Your task to perform on an android device: turn on priority inbox in the gmail app Image 0: 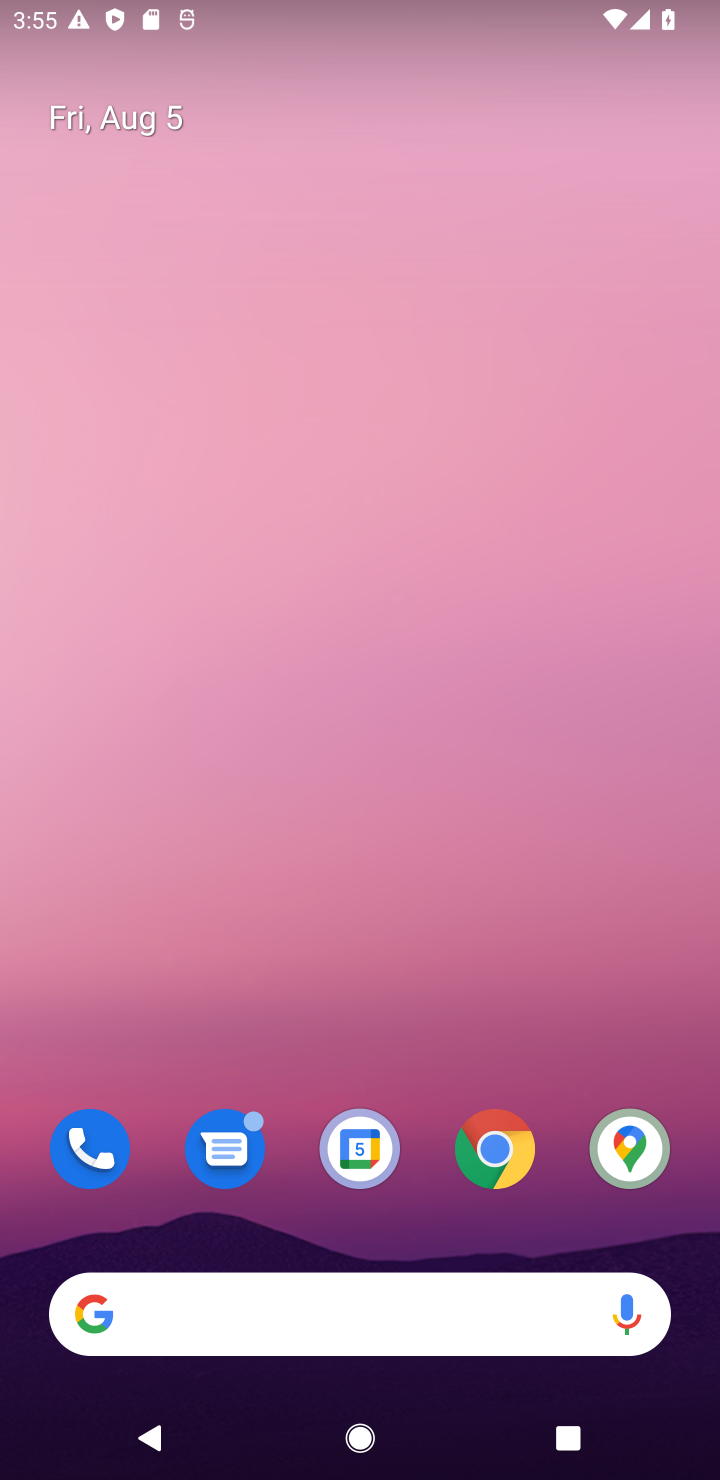
Step 0: press back button
Your task to perform on an android device: turn on priority inbox in the gmail app Image 1: 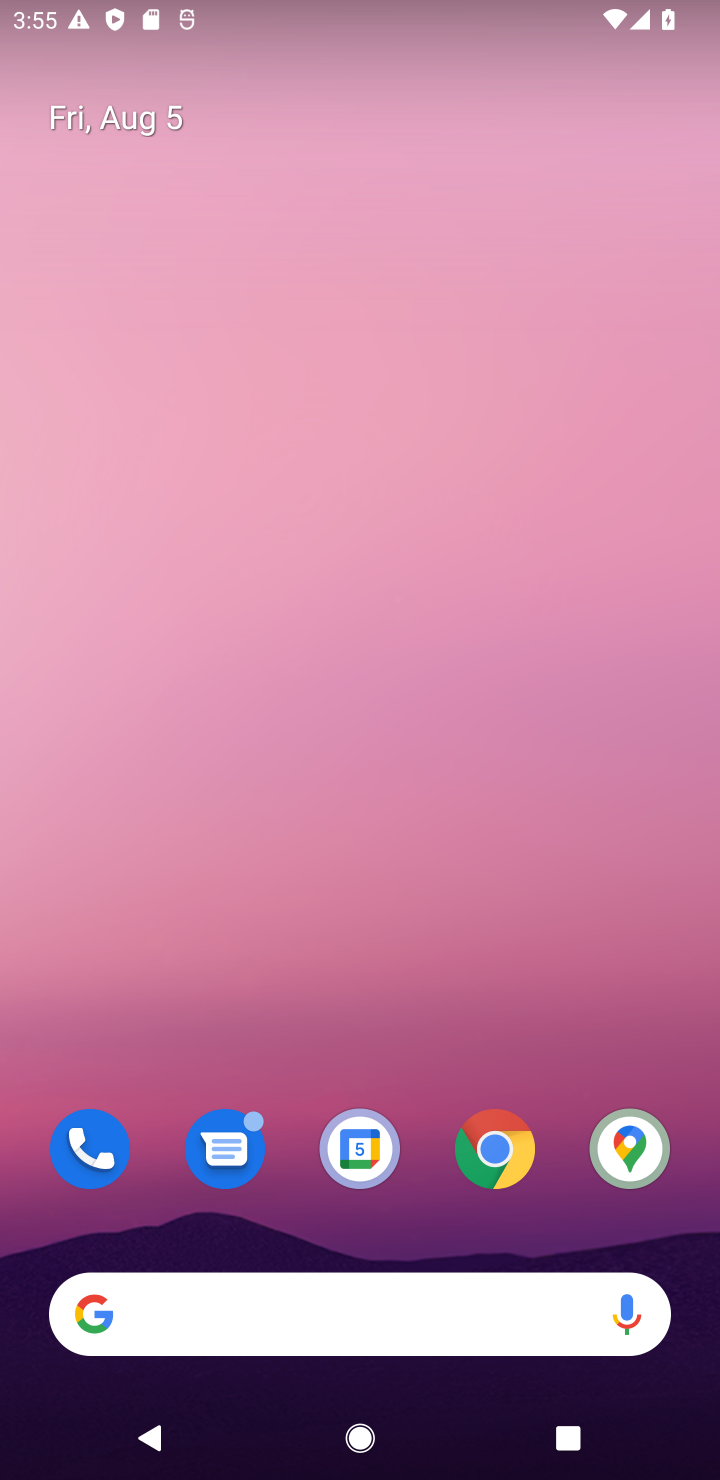
Step 1: click (608, 1131)
Your task to perform on an android device: turn on priority inbox in the gmail app Image 2: 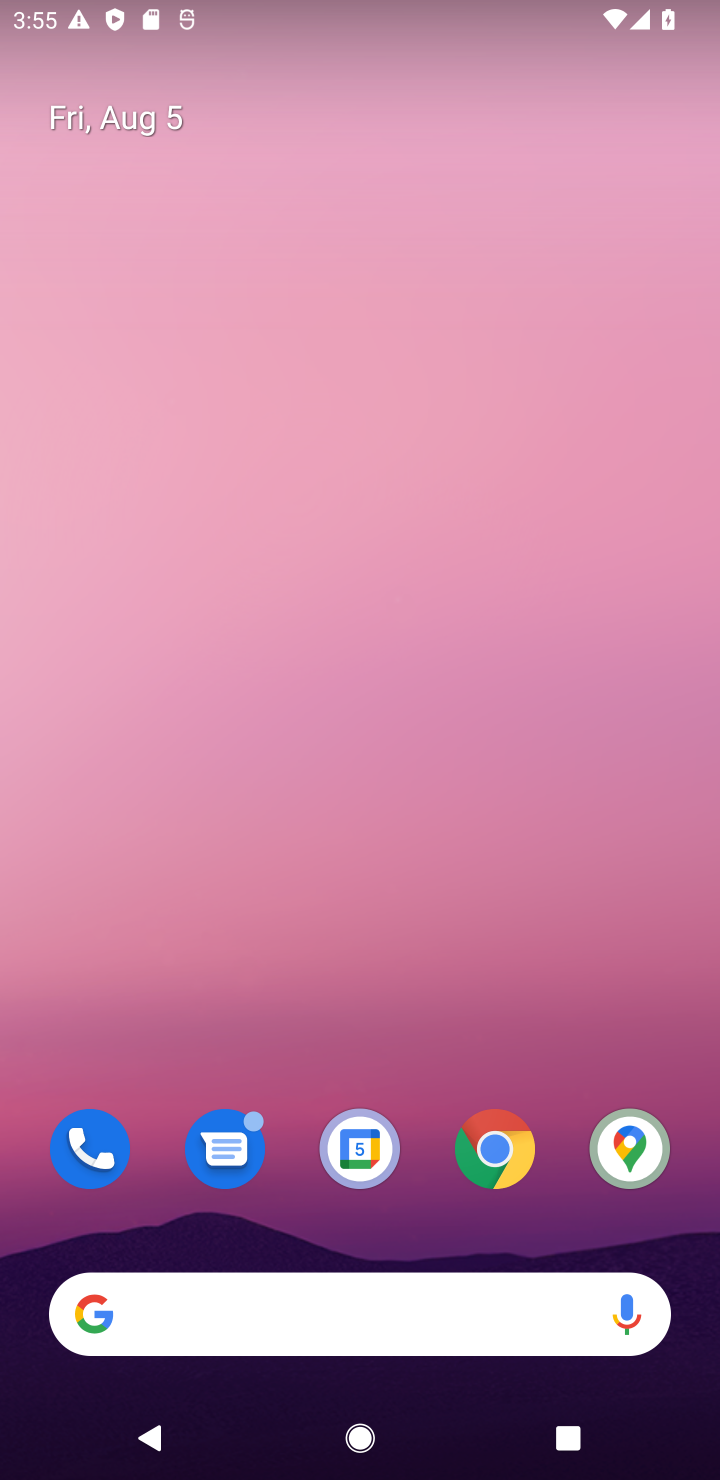
Step 2: drag from (313, 1187) to (570, 141)
Your task to perform on an android device: turn on priority inbox in the gmail app Image 3: 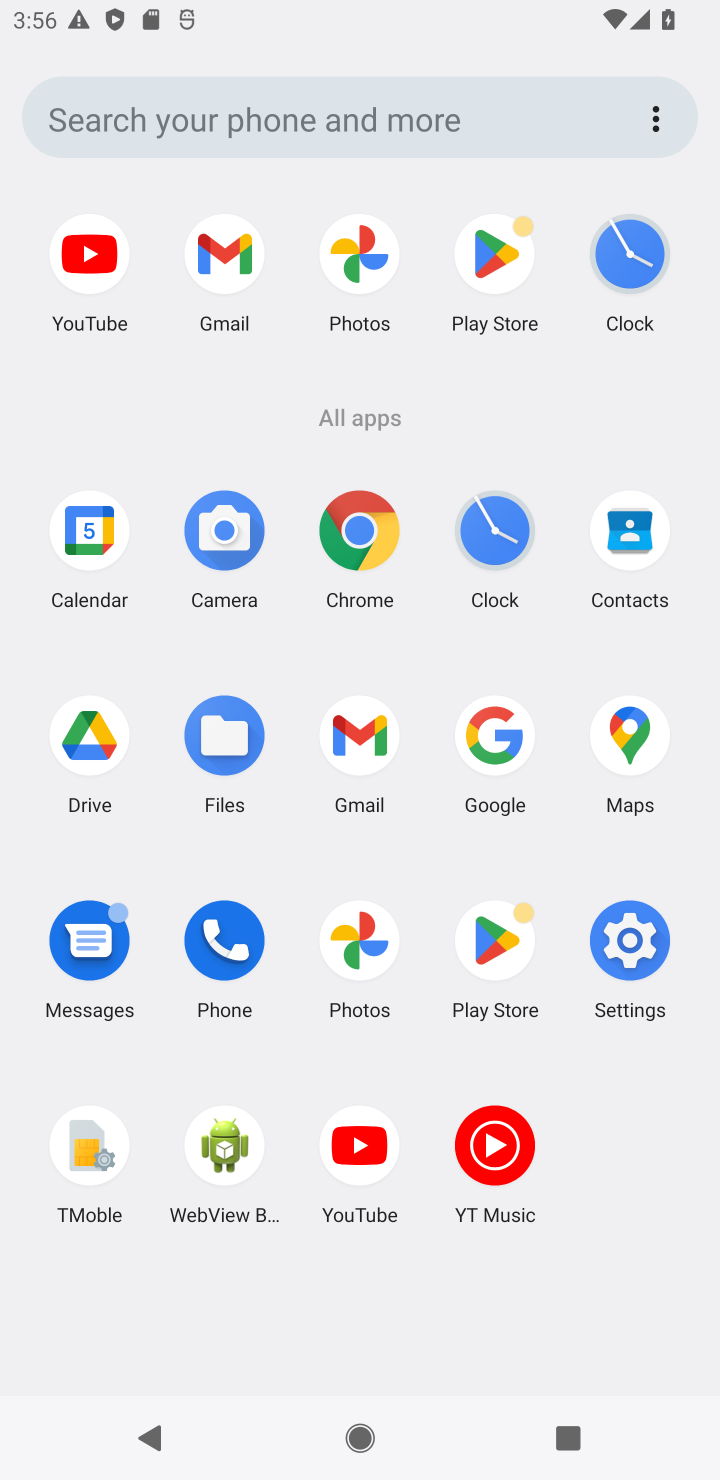
Step 3: click (191, 266)
Your task to perform on an android device: turn on priority inbox in the gmail app Image 4: 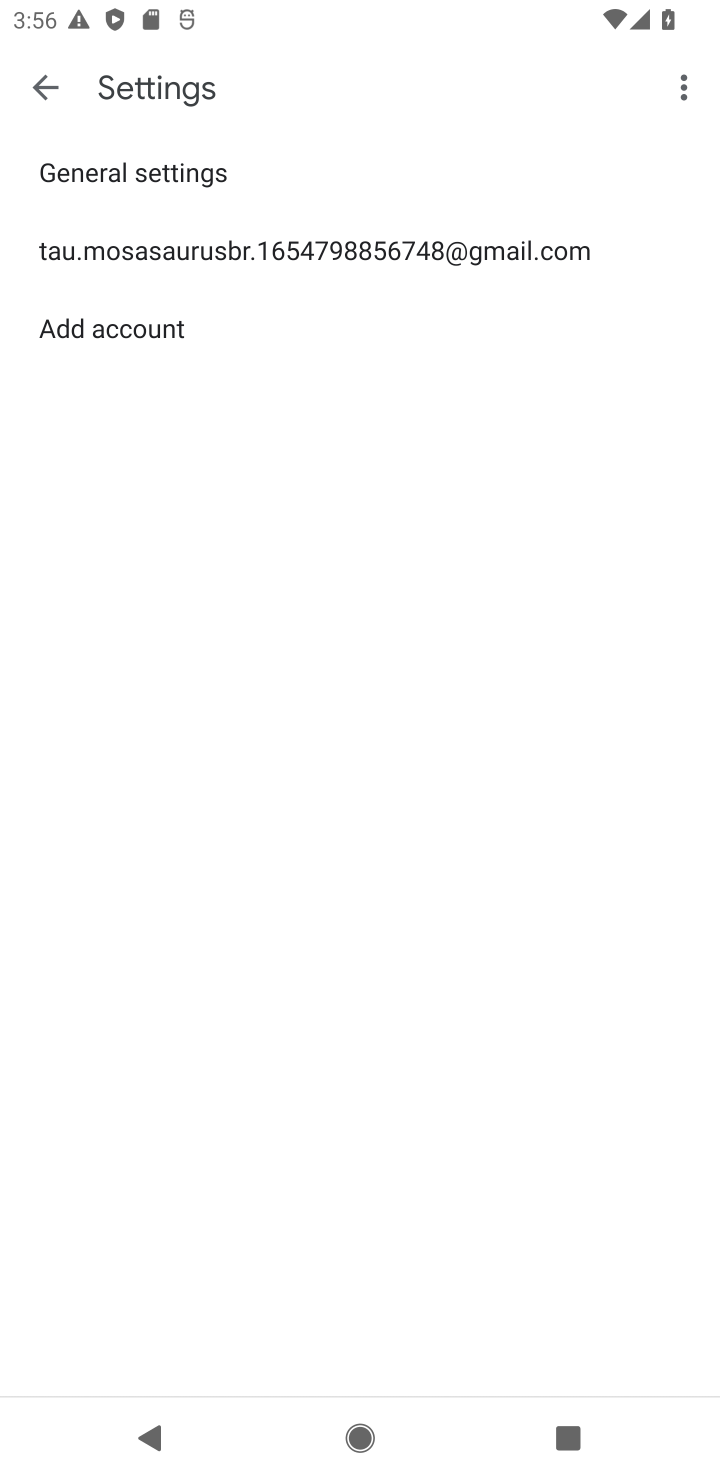
Step 4: click (459, 247)
Your task to perform on an android device: turn on priority inbox in the gmail app Image 5: 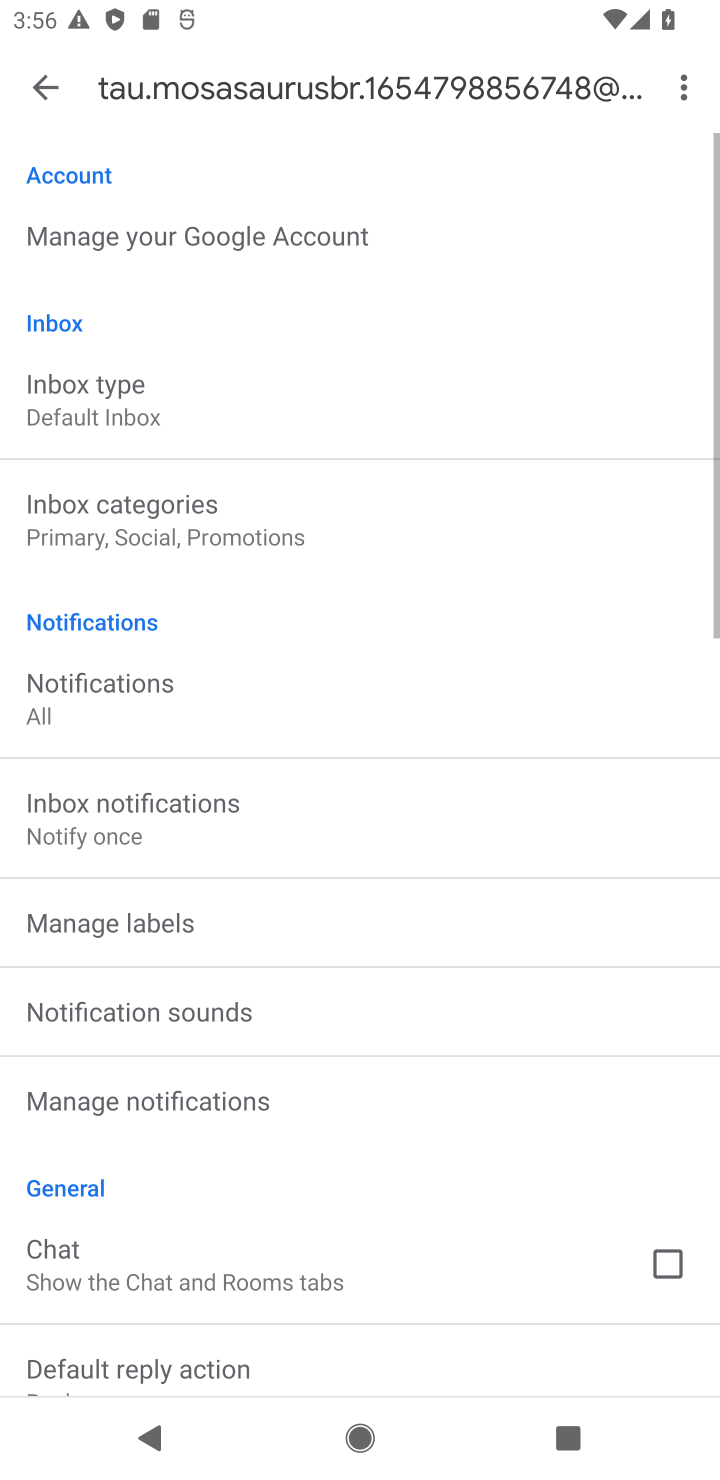
Step 5: click (123, 385)
Your task to perform on an android device: turn on priority inbox in the gmail app Image 6: 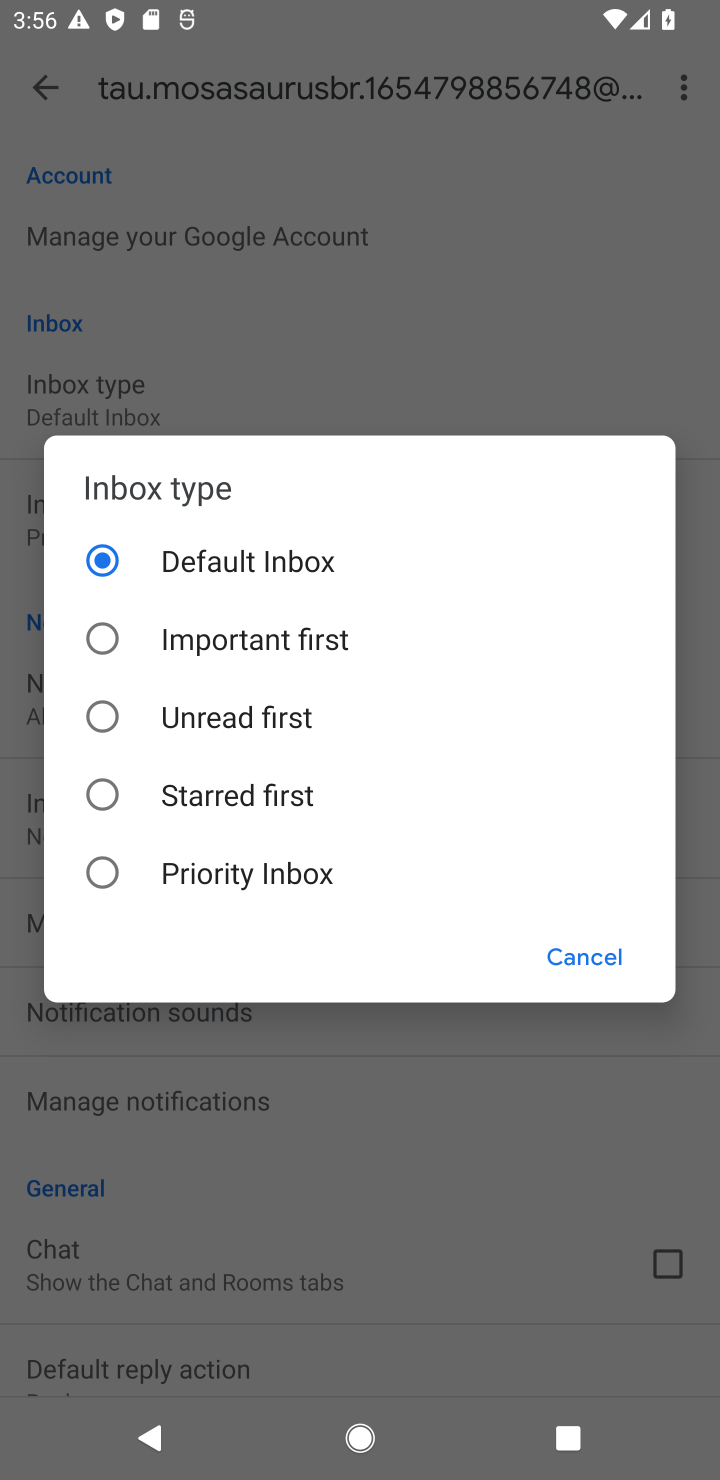
Step 6: click (99, 884)
Your task to perform on an android device: turn on priority inbox in the gmail app Image 7: 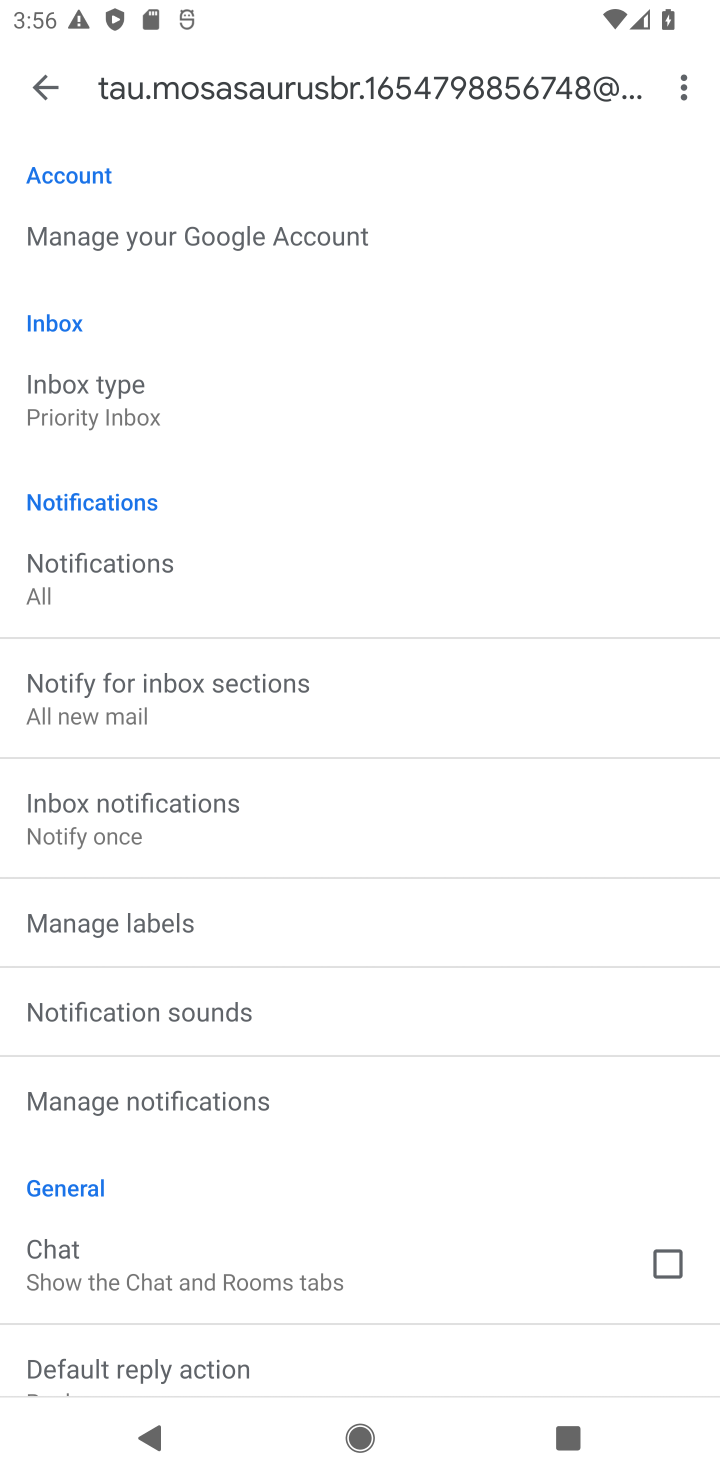
Step 7: task complete